Your task to perform on an android device: Toggle the flashlight Image 0: 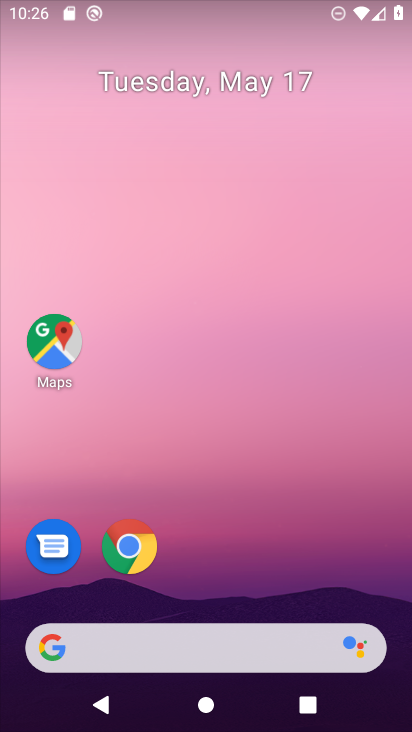
Step 0: drag from (214, 0) to (284, 709)
Your task to perform on an android device: Toggle the flashlight Image 1: 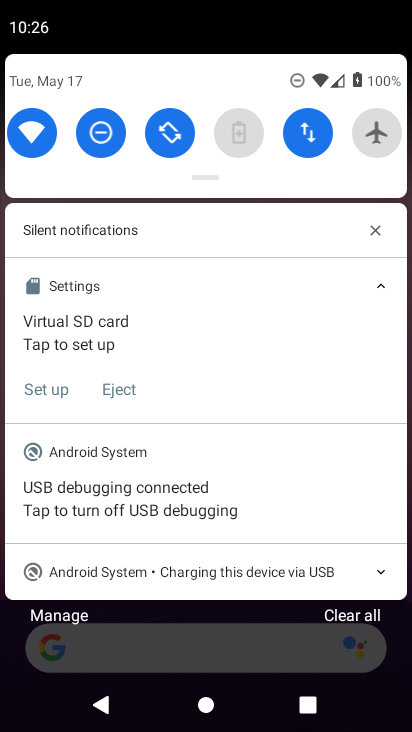
Step 1: task complete